Your task to perform on an android device: set an alarm Image 0: 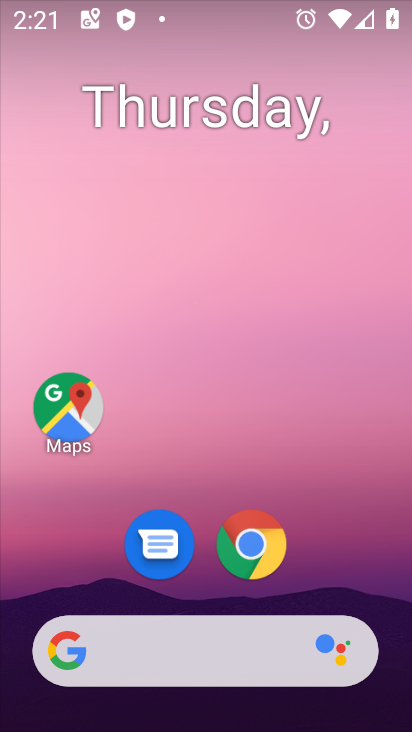
Step 0: drag from (357, 520) to (363, 340)
Your task to perform on an android device: set an alarm Image 1: 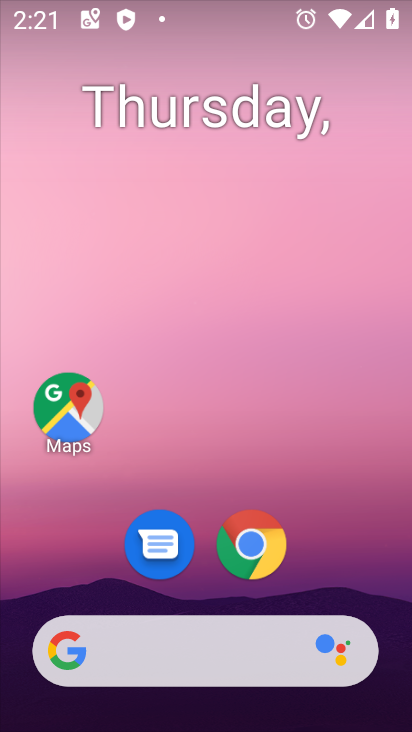
Step 1: drag from (338, 488) to (394, 171)
Your task to perform on an android device: set an alarm Image 2: 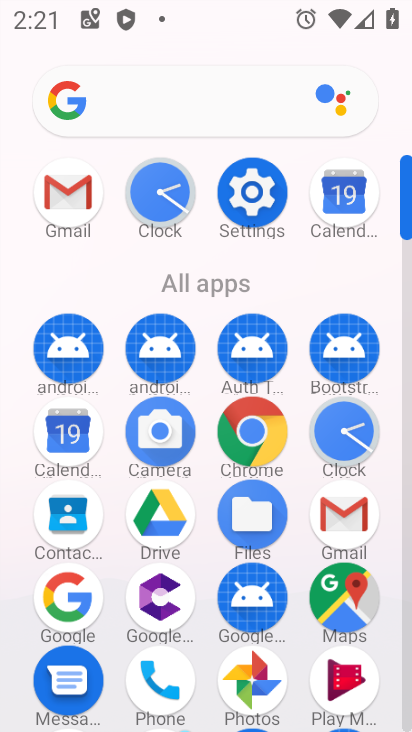
Step 2: click (158, 202)
Your task to perform on an android device: set an alarm Image 3: 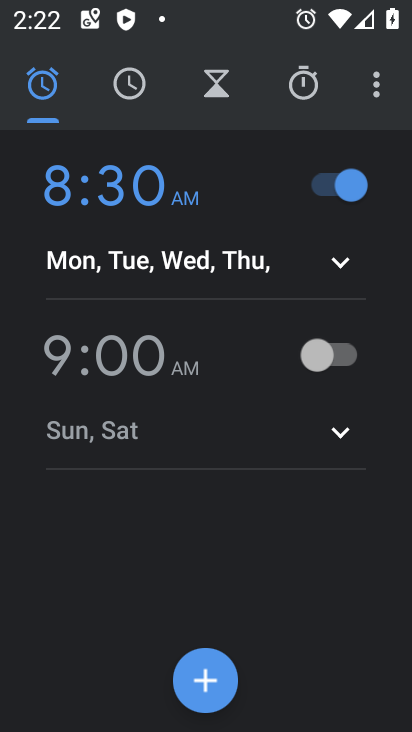
Step 3: click (321, 350)
Your task to perform on an android device: set an alarm Image 4: 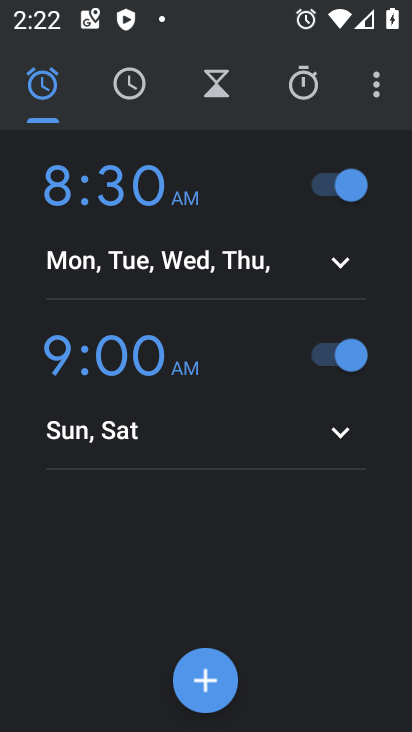
Step 4: task complete